Your task to perform on an android device: Show me popular videos on Youtube Image 0: 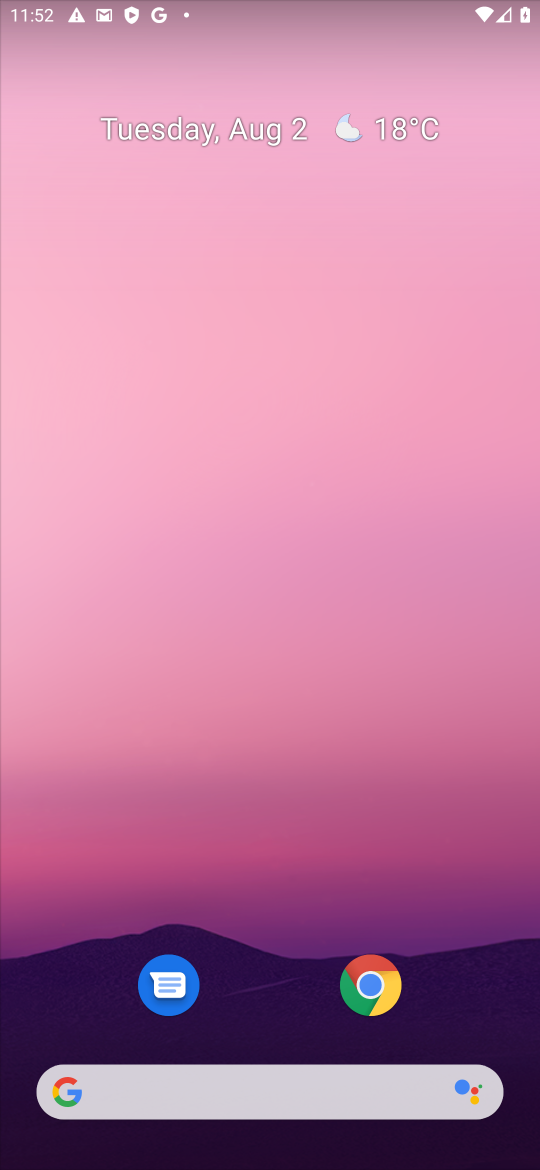
Step 0: drag from (297, 1013) to (382, 156)
Your task to perform on an android device: Show me popular videos on Youtube Image 1: 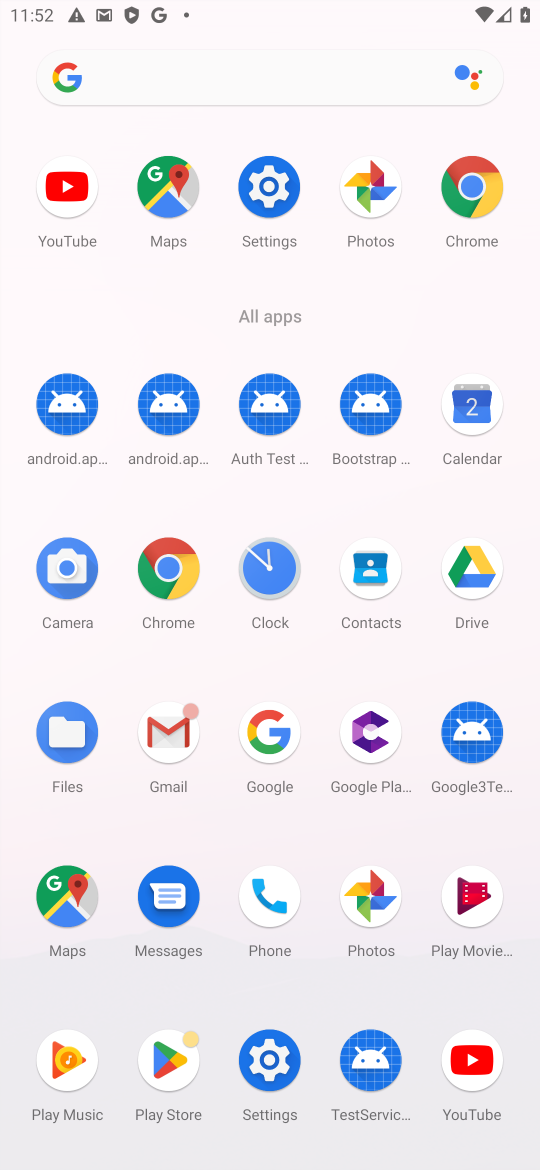
Step 1: click (32, 237)
Your task to perform on an android device: Show me popular videos on Youtube Image 2: 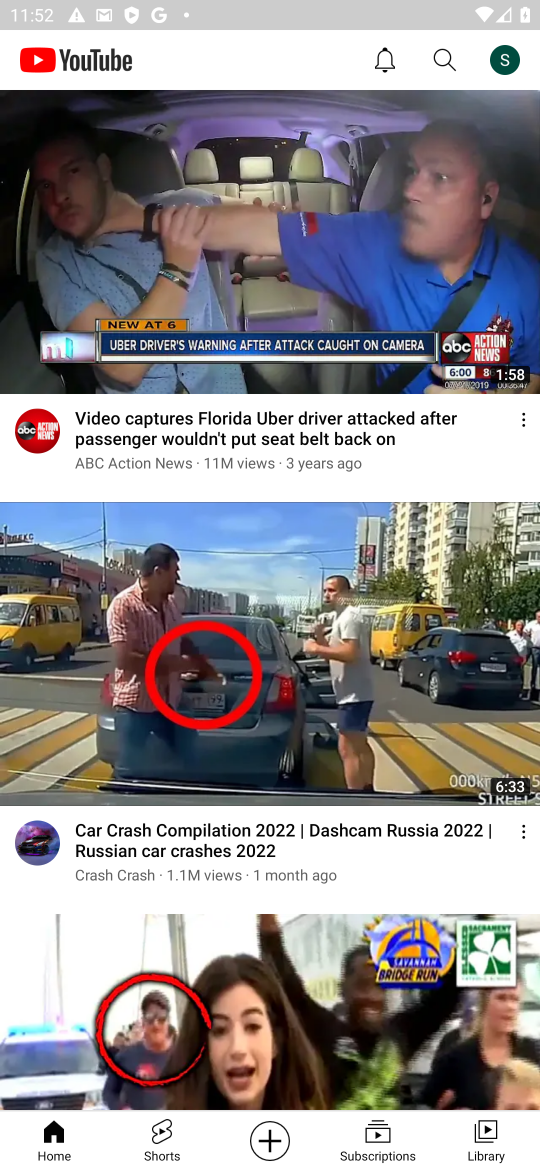
Step 2: task complete